Your task to perform on an android device: change keyboard looks Image 0: 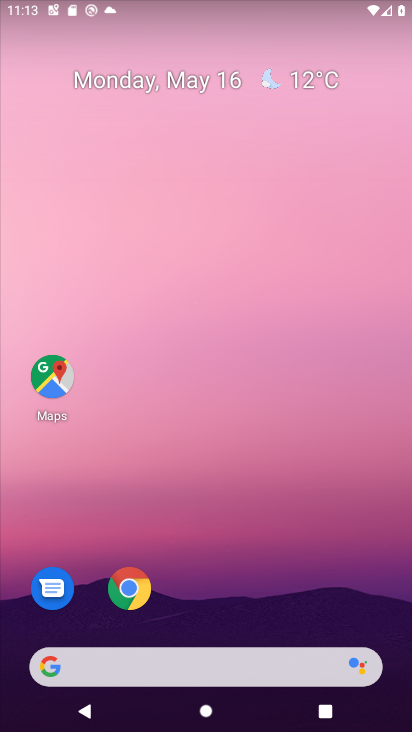
Step 0: drag from (213, 592) to (265, 34)
Your task to perform on an android device: change keyboard looks Image 1: 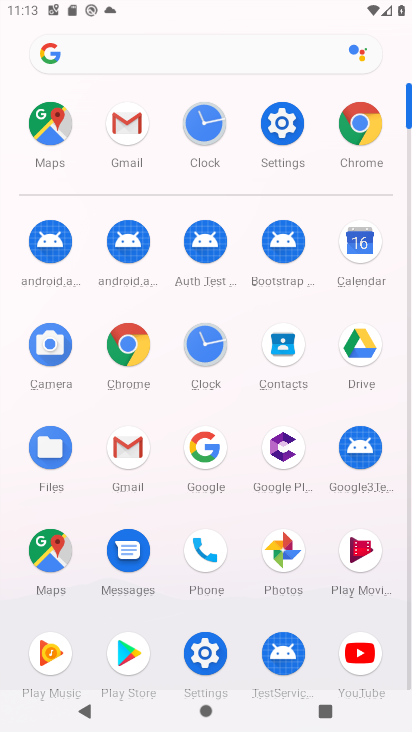
Step 1: click (278, 118)
Your task to perform on an android device: change keyboard looks Image 2: 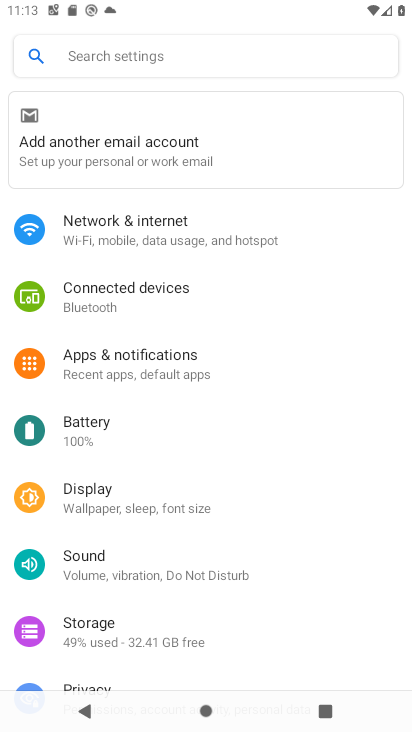
Step 2: drag from (183, 644) to (182, 119)
Your task to perform on an android device: change keyboard looks Image 3: 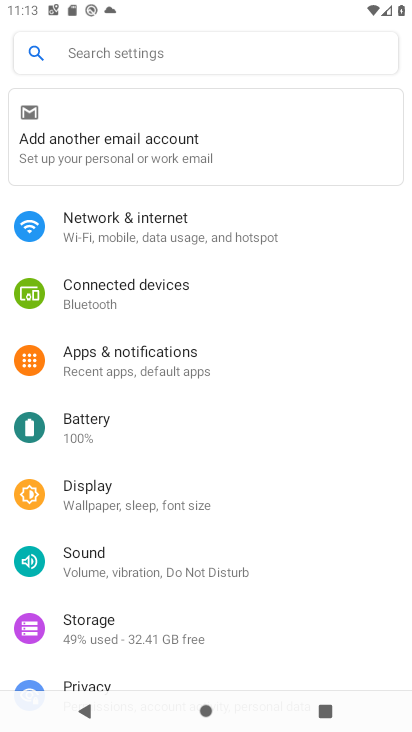
Step 3: drag from (199, 650) to (238, 129)
Your task to perform on an android device: change keyboard looks Image 4: 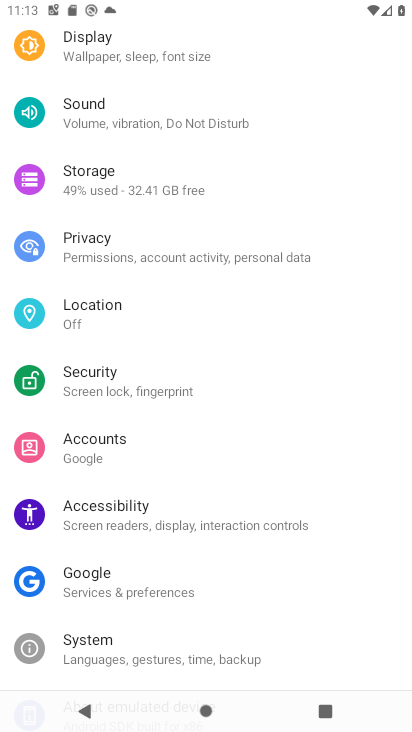
Step 4: click (130, 651)
Your task to perform on an android device: change keyboard looks Image 5: 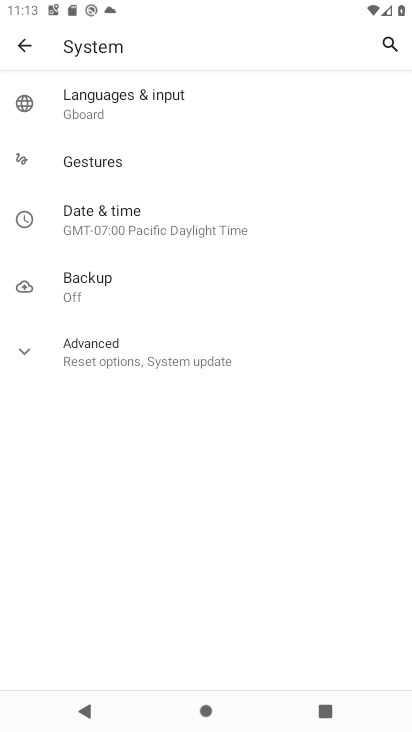
Step 5: click (58, 92)
Your task to perform on an android device: change keyboard looks Image 6: 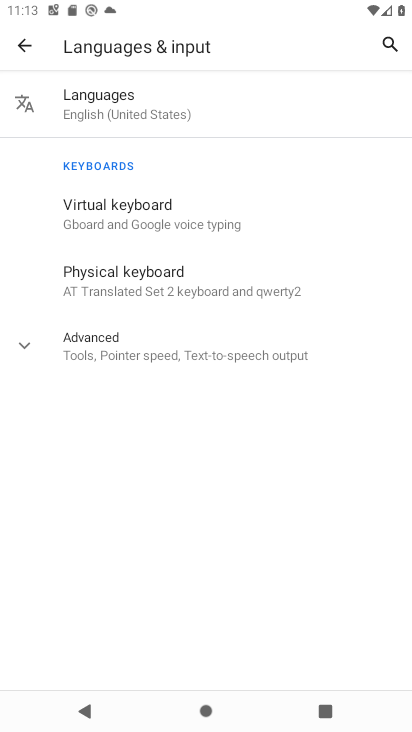
Step 6: click (167, 206)
Your task to perform on an android device: change keyboard looks Image 7: 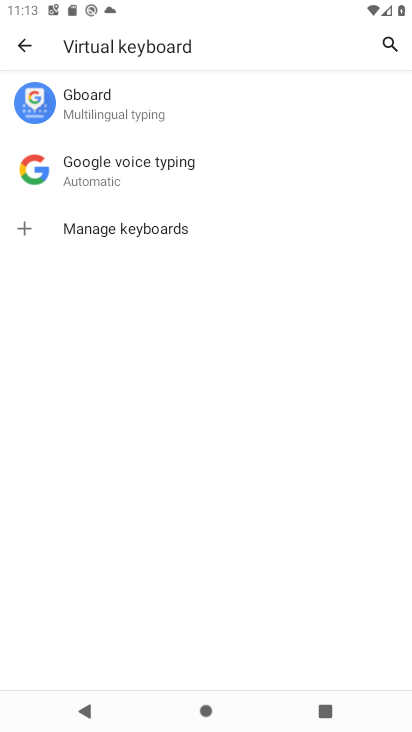
Step 7: click (124, 101)
Your task to perform on an android device: change keyboard looks Image 8: 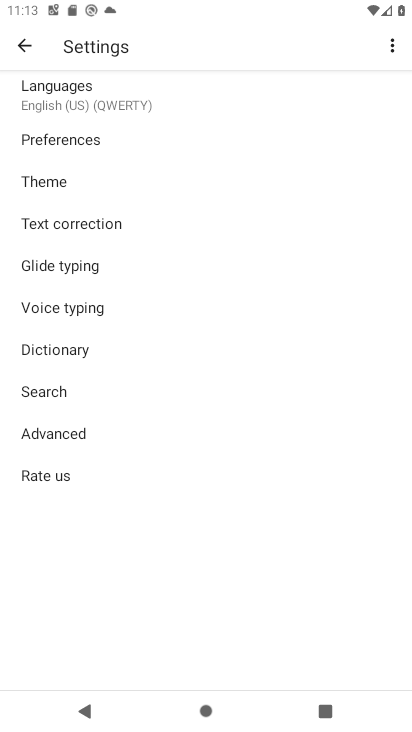
Step 8: click (96, 176)
Your task to perform on an android device: change keyboard looks Image 9: 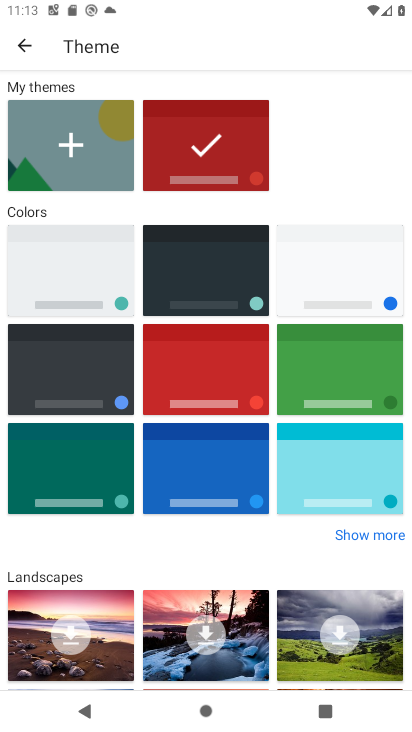
Step 9: click (340, 382)
Your task to perform on an android device: change keyboard looks Image 10: 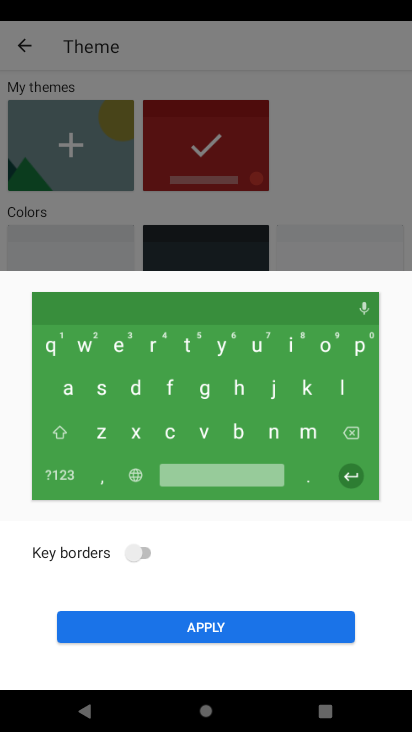
Step 10: click (216, 619)
Your task to perform on an android device: change keyboard looks Image 11: 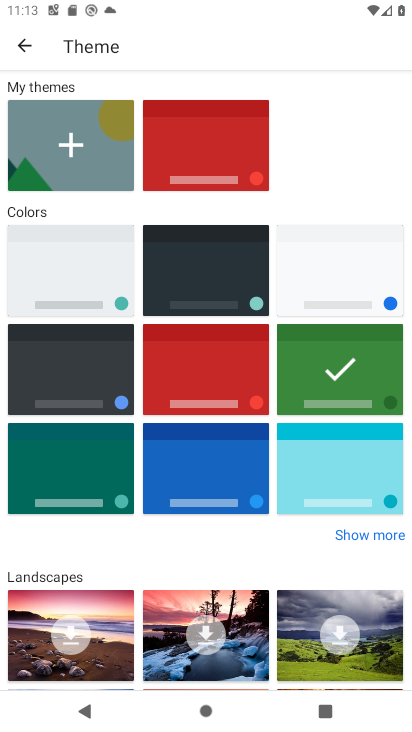
Step 11: task complete